Your task to perform on an android device: Go to network settings Image 0: 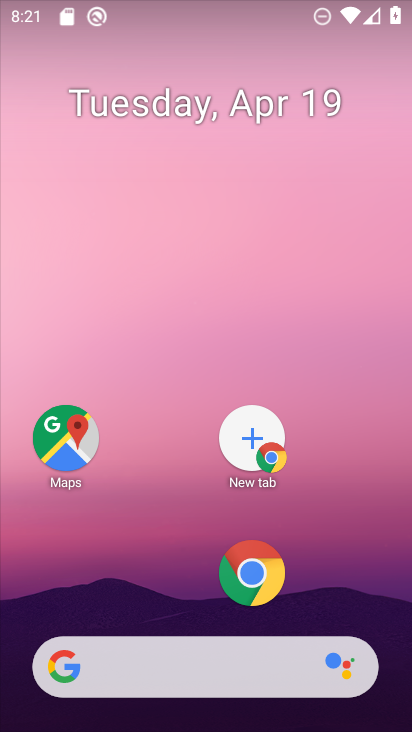
Step 0: drag from (132, 610) to (200, 49)
Your task to perform on an android device: Go to network settings Image 1: 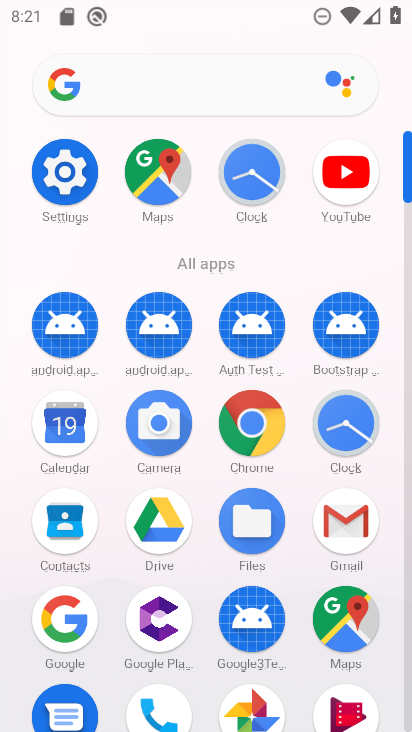
Step 1: click (69, 162)
Your task to perform on an android device: Go to network settings Image 2: 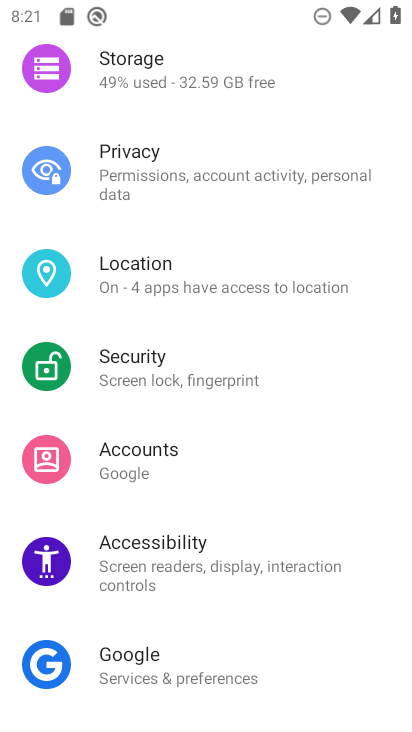
Step 2: drag from (195, 126) to (136, 580)
Your task to perform on an android device: Go to network settings Image 3: 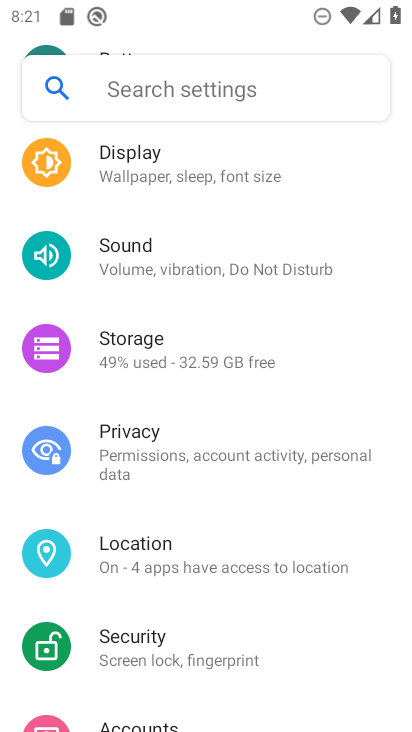
Step 3: drag from (168, 215) to (263, 640)
Your task to perform on an android device: Go to network settings Image 4: 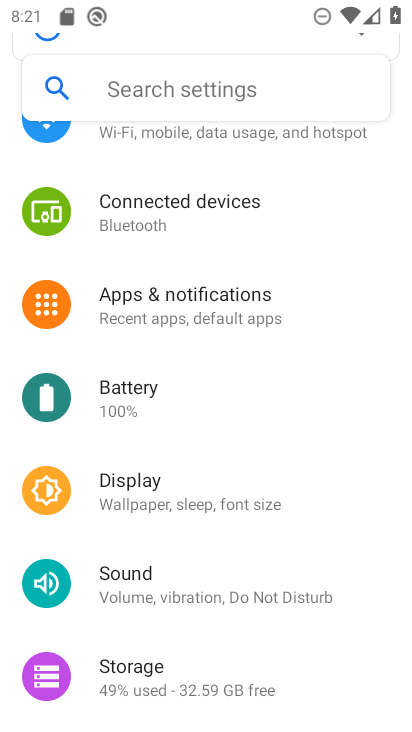
Step 4: drag from (176, 144) to (155, 593)
Your task to perform on an android device: Go to network settings Image 5: 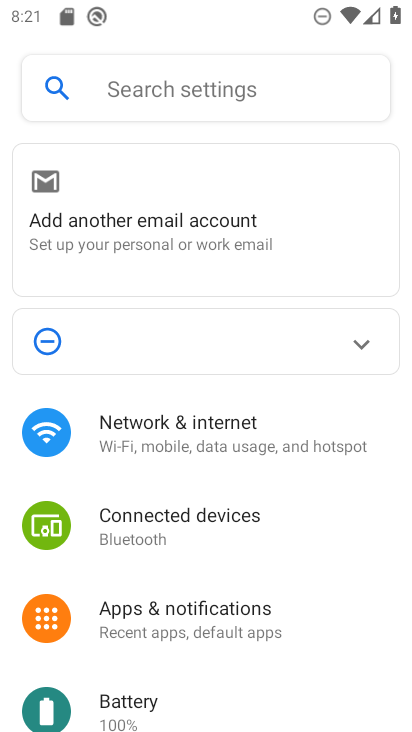
Step 5: click (225, 432)
Your task to perform on an android device: Go to network settings Image 6: 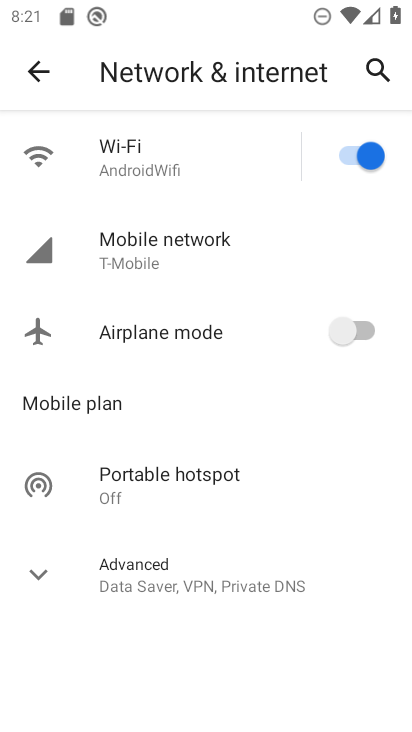
Step 6: task complete